Your task to perform on an android device: Open Amazon Image 0: 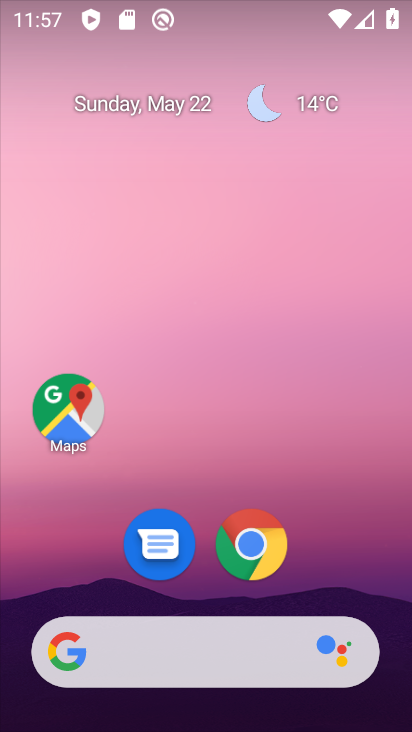
Step 0: click (246, 537)
Your task to perform on an android device: Open Amazon Image 1: 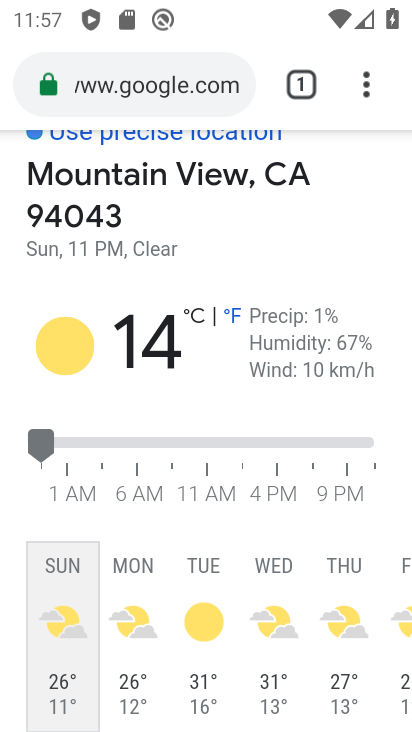
Step 1: click (208, 90)
Your task to perform on an android device: Open Amazon Image 2: 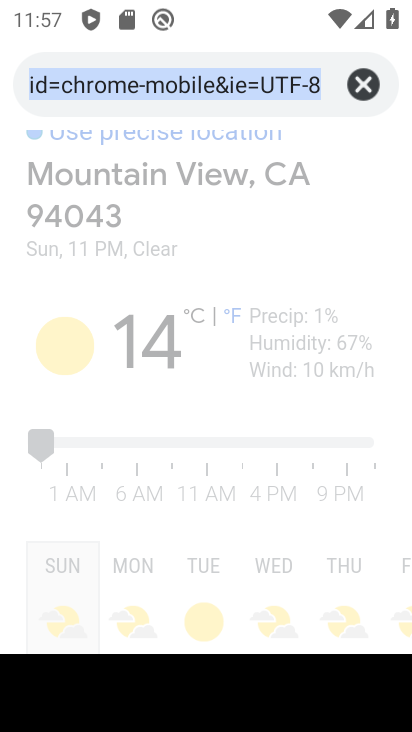
Step 2: type "amazon"
Your task to perform on an android device: Open Amazon Image 3: 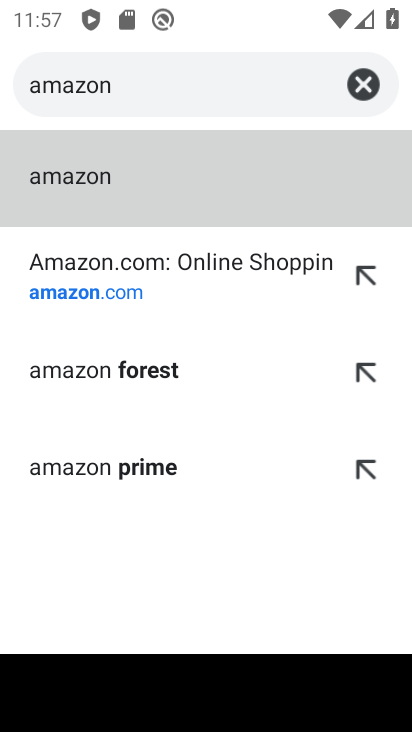
Step 3: click (72, 289)
Your task to perform on an android device: Open Amazon Image 4: 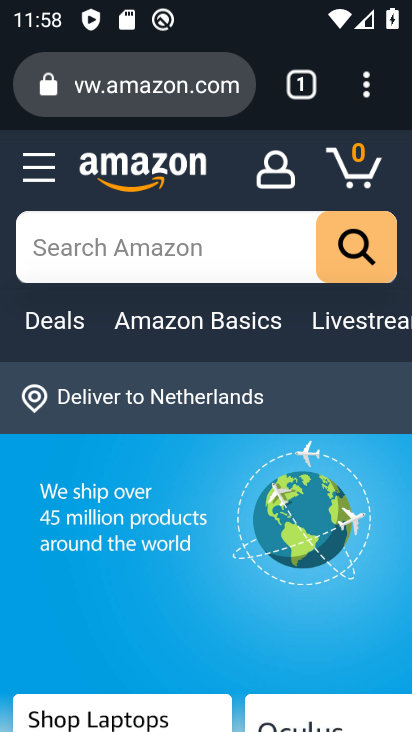
Step 4: task complete